Your task to perform on an android device: open app "Flipkart Online Shopping App" Image 0: 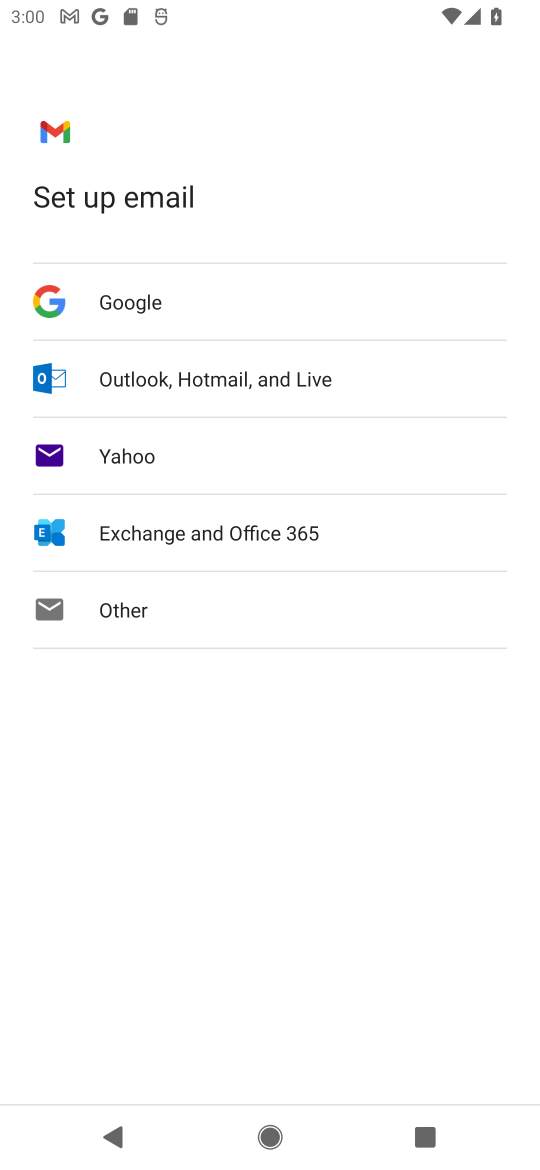
Step 0: press home button
Your task to perform on an android device: open app "Flipkart Online Shopping App" Image 1: 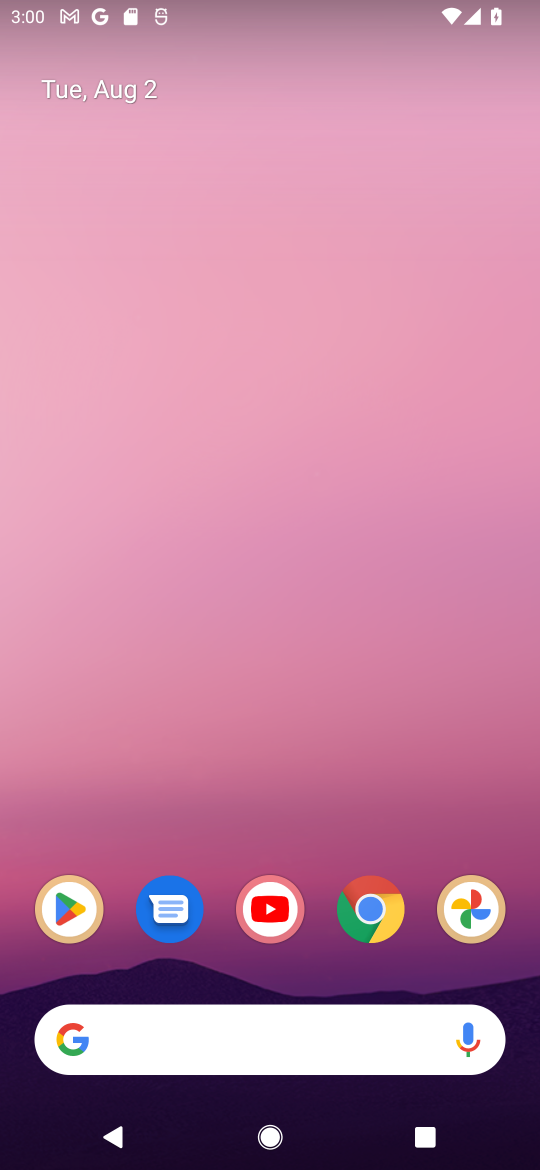
Step 1: drag from (210, 964) to (330, 339)
Your task to perform on an android device: open app "Flipkart Online Shopping App" Image 2: 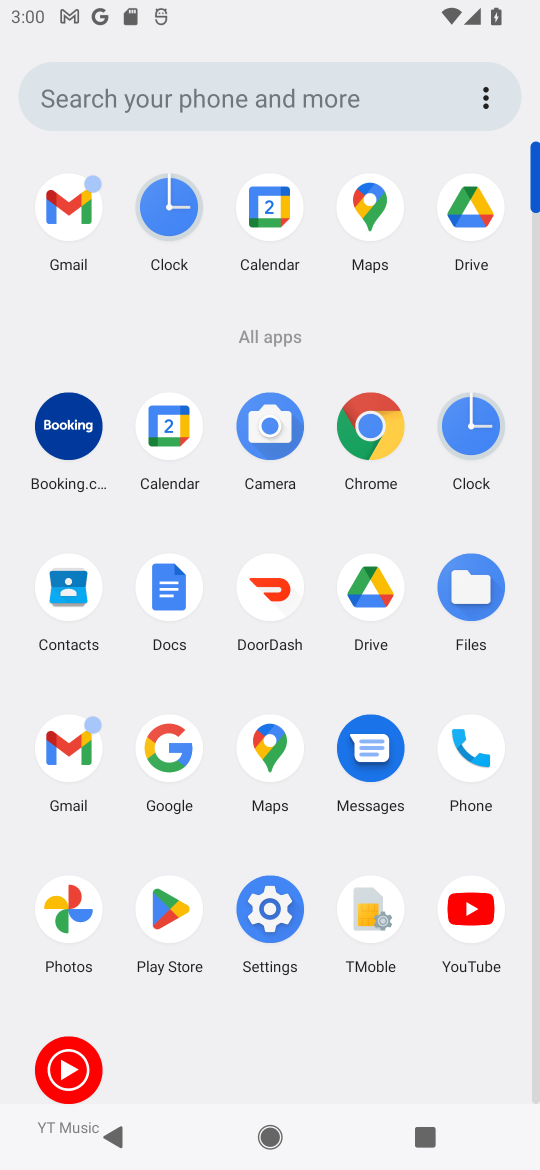
Step 2: click (171, 907)
Your task to perform on an android device: open app "Flipkart Online Shopping App" Image 3: 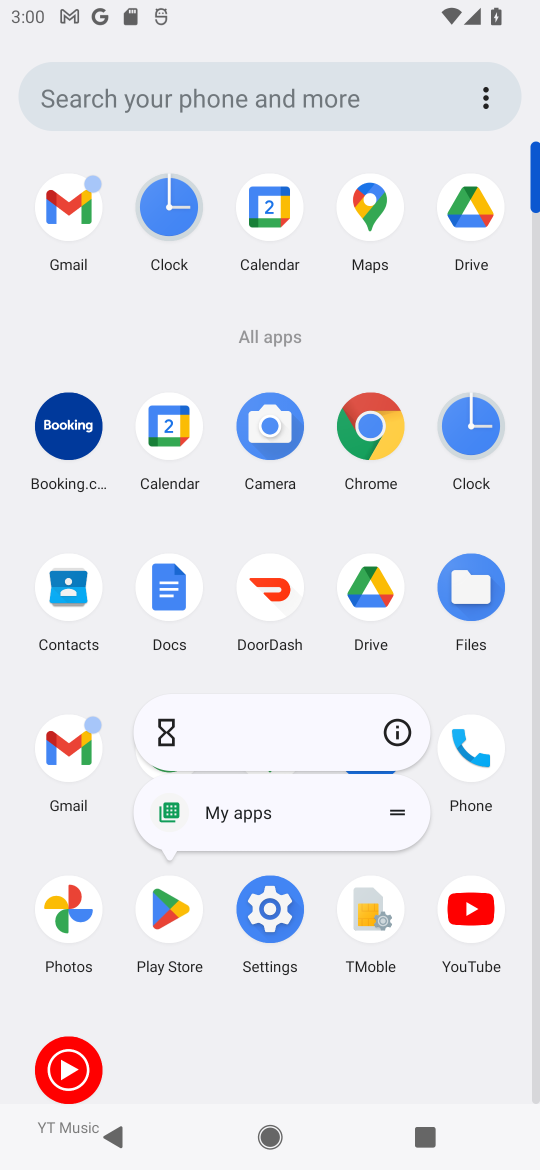
Step 3: click (404, 731)
Your task to perform on an android device: open app "Flipkart Online Shopping App" Image 4: 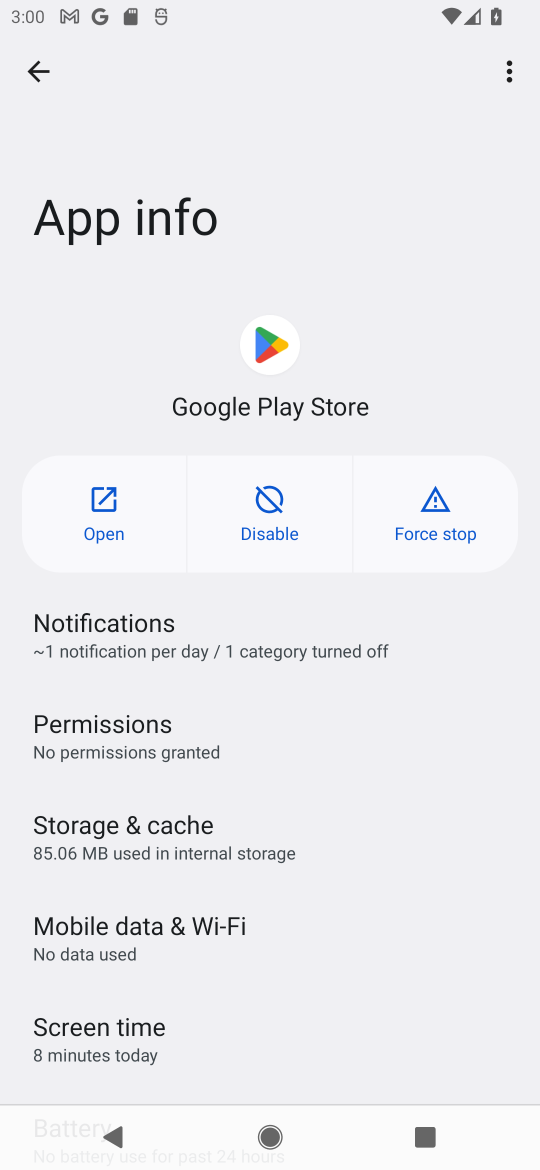
Step 4: click (93, 534)
Your task to perform on an android device: open app "Flipkart Online Shopping App" Image 5: 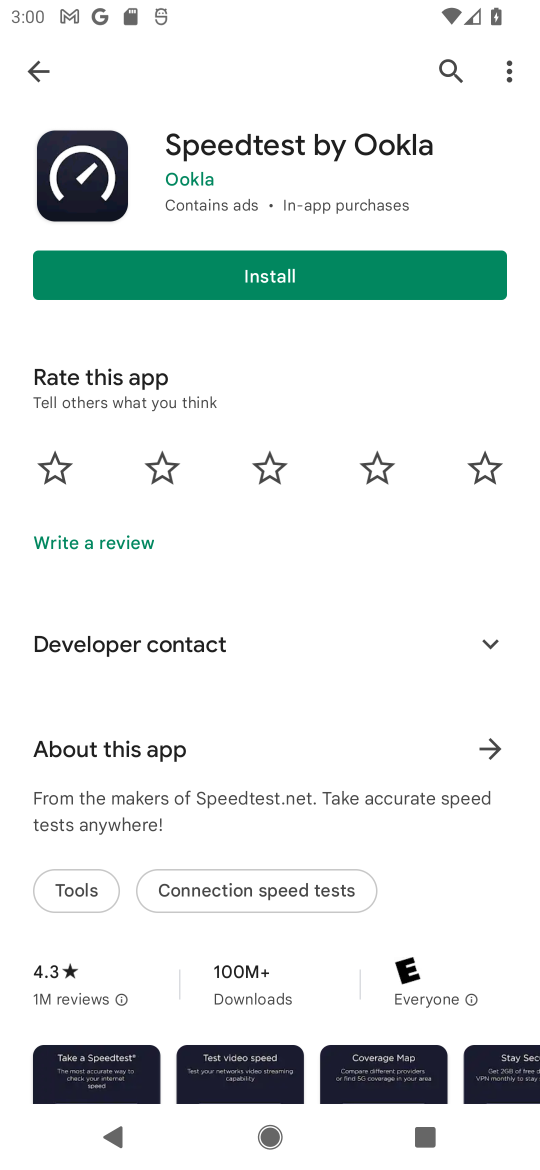
Step 5: click (450, 73)
Your task to perform on an android device: open app "Flipkart Online Shopping App" Image 6: 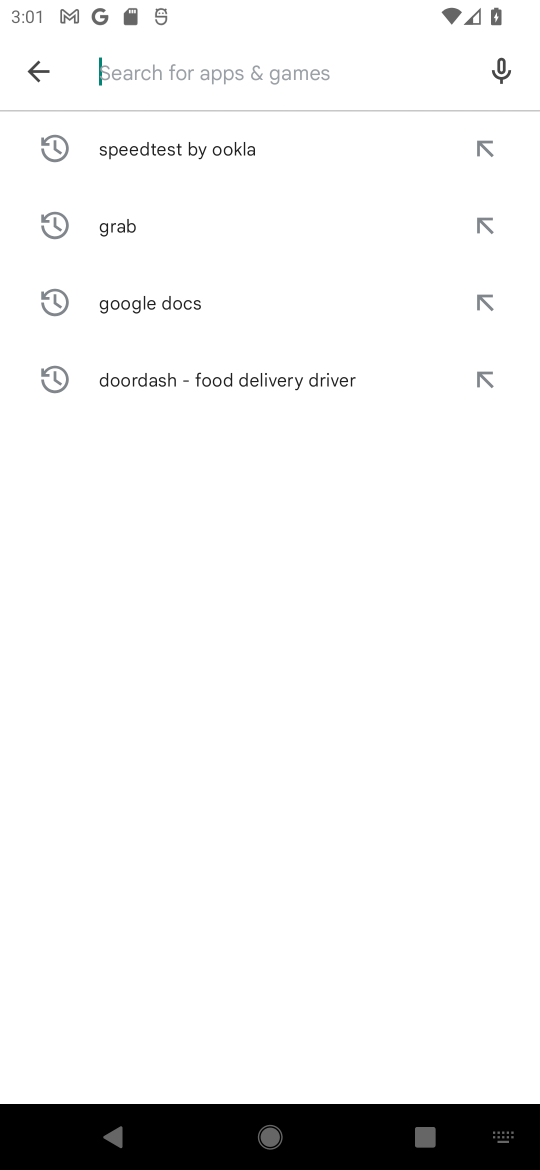
Step 6: type "Flipkart Online Shopping App"
Your task to perform on an android device: open app "Flipkart Online Shopping App" Image 7: 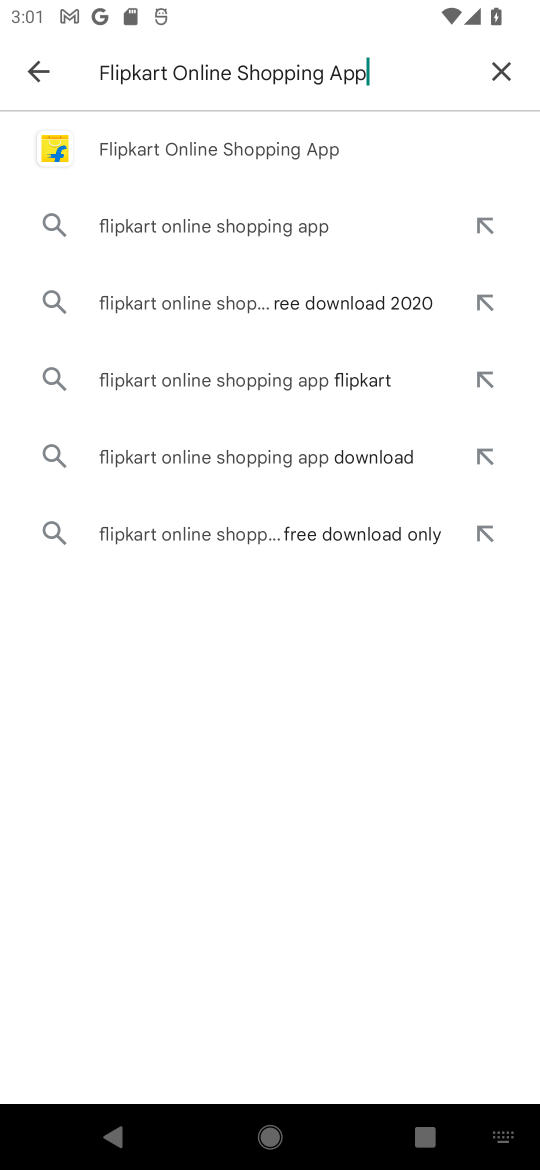
Step 7: click (212, 141)
Your task to perform on an android device: open app "Flipkart Online Shopping App" Image 8: 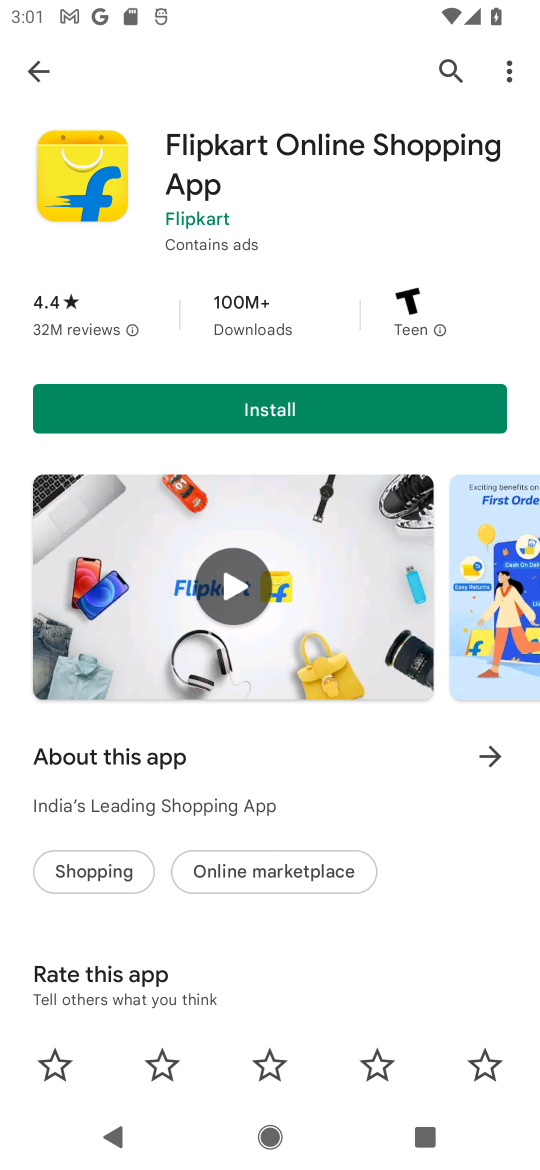
Step 8: task complete